Your task to perform on an android device: What's on my calendar tomorrow? Image 0: 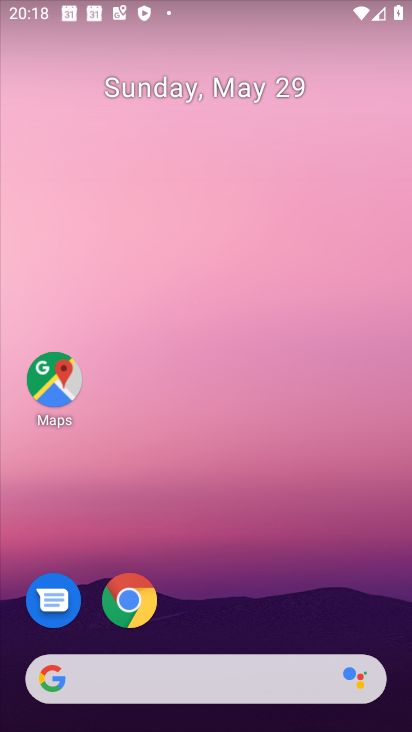
Step 0: drag from (290, 415) to (275, 155)
Your task to perform on an android device: What's on my calendar tomorrow? Image 1: 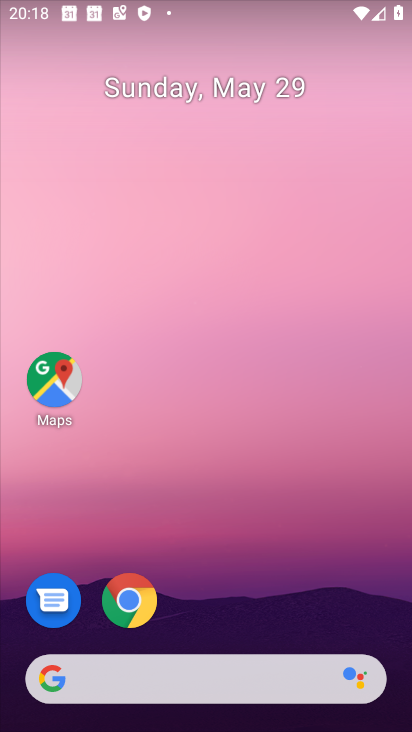
Step 1: drag from (304, 533) to (303, 171)
Your task to perform on an android device: What's on my calendar tomorrow? Image 2: 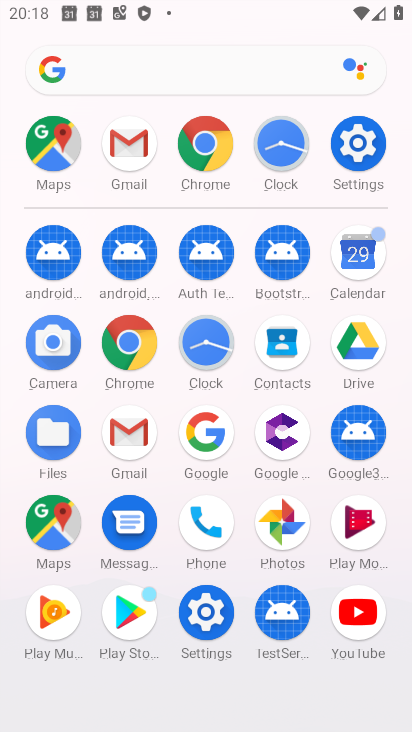
Step 2: click (361, 248)
Your task to perform on an android device: What's on my calendar tomorrow? Image 3: 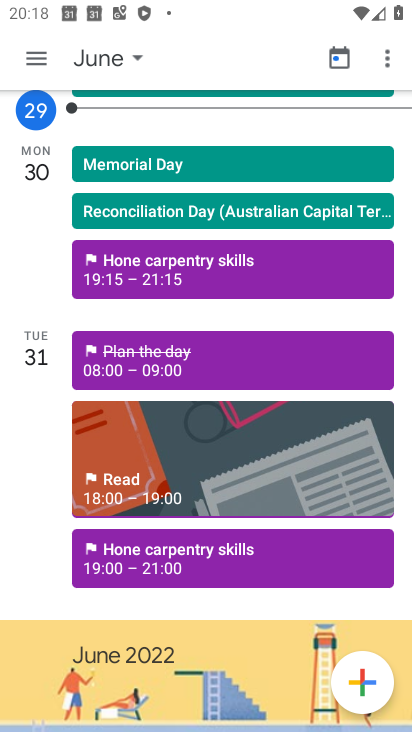
Step 3: task complete